Your task to perform on an android device: Set the phone to "Do not disturb". Image 0: 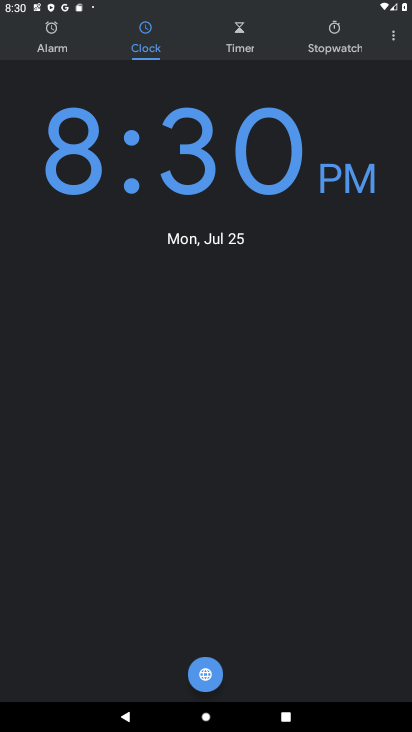
Step 0: press home button
Your task to perform on an android device: Set the phone to "Do not disturb". Image 1: 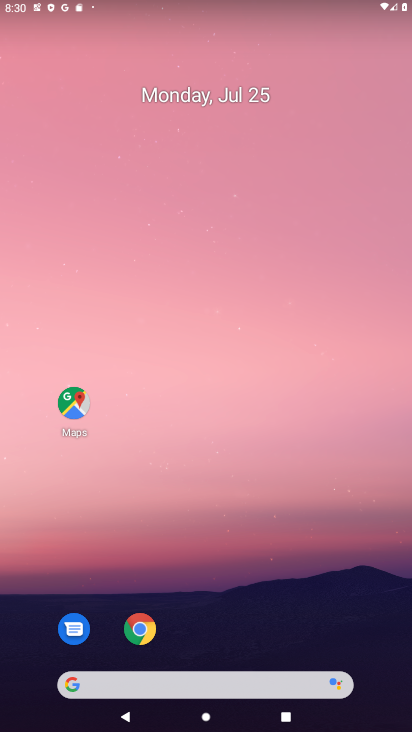
Step 1: drag from (248, 639) to (221, 11)
Your task to perform on an android device: Set the phone to "Do not disturb". Image 2: 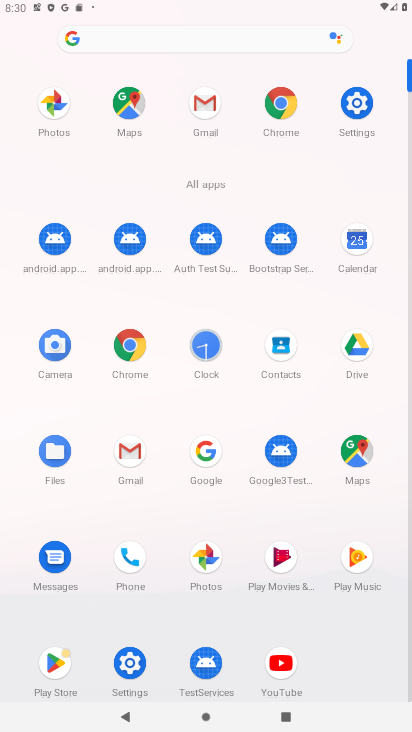
Step 2: click (365, 111)
Your task to perform on an android device: Set the phone to "Do not disturb". Image 3: 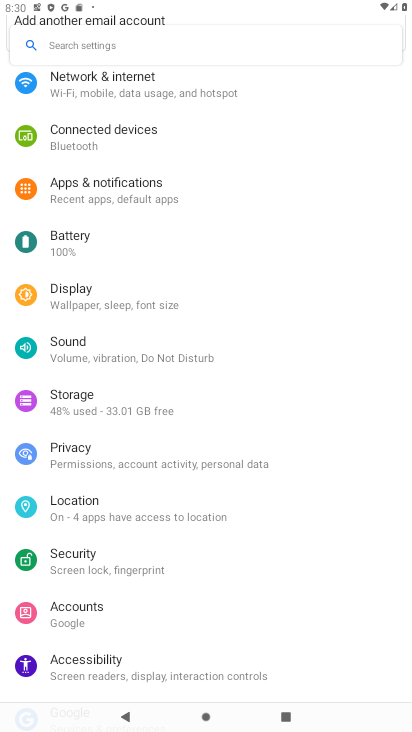
Step 3: click (97, 353)
Your task to perform on an android device: Set the phone to "Do not disturb". Image 4: 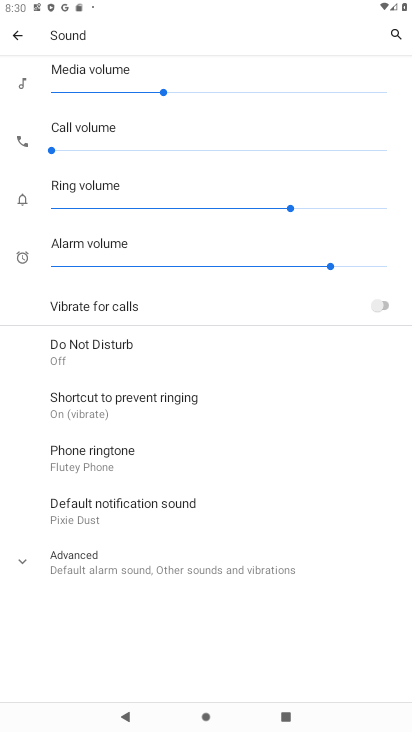
Step 4: click (97, 353)
Your task to perform on an android device: Set the phone to "Do not disturb". Image 5: 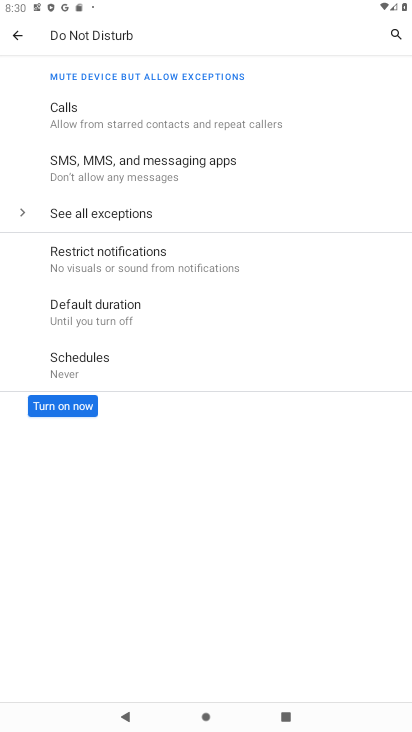
Step 5: click (74, 403)
Your task to perform on an android device: Set the phone to "Do not disturb". Image 6: 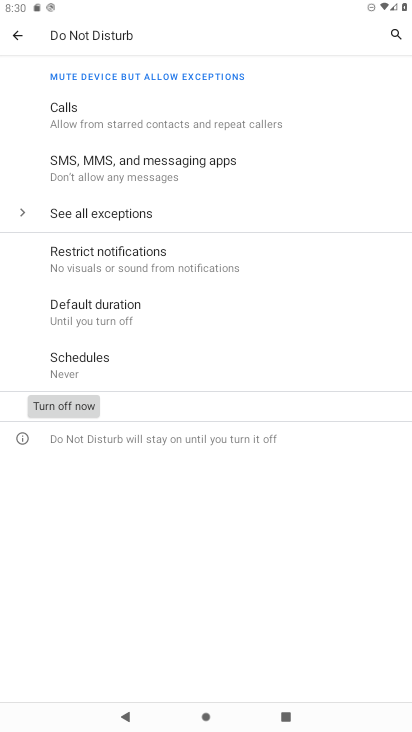
Step 6: task complete